Your task to perform on an android device: Open battery settings Image 0: 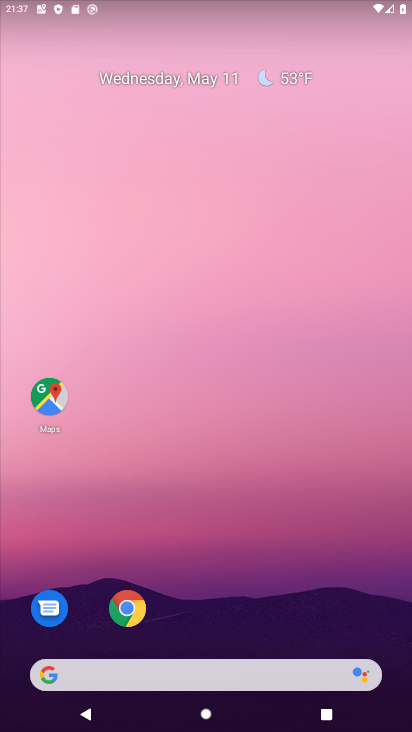
Step 0: drag from (234, 597) to (284, 126)
Your task to perform on an android device: Open battery settings Image 1: 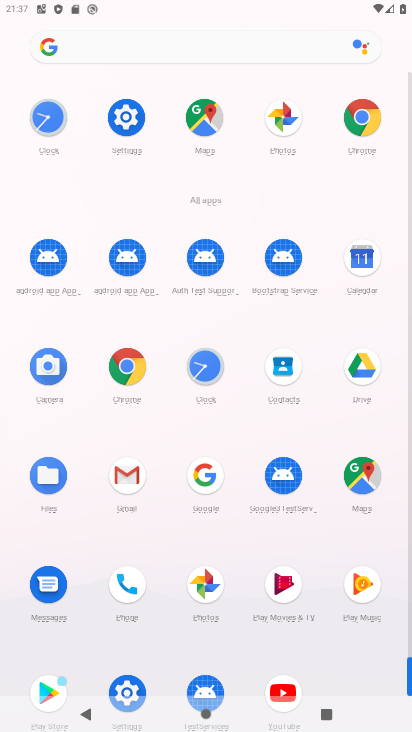
Step 1: click (121, 124)
Your task to perform on an android device: Open battery settings Image 2: 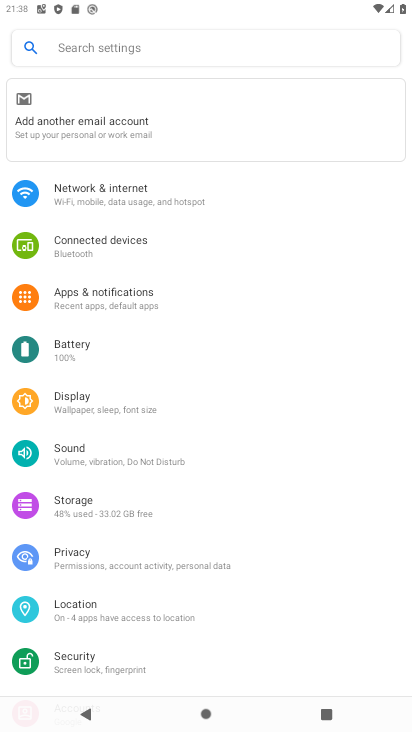
Step 2: click (66, 355)
Your task to perform on an android device: Open battery settings Image 3: 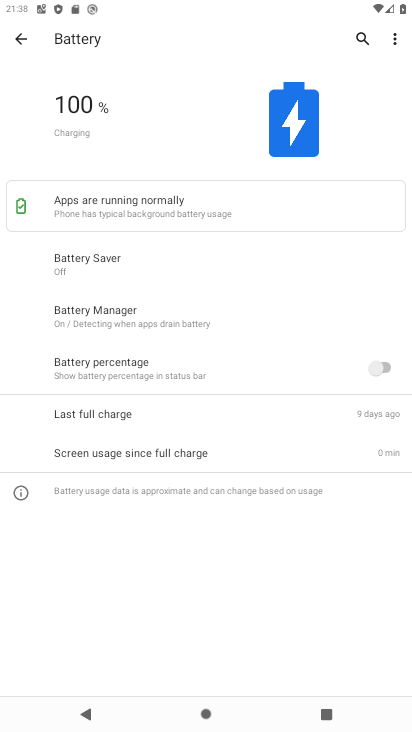
Step 3: task complete